Your task to perform on an android device: set the timer Image 0: 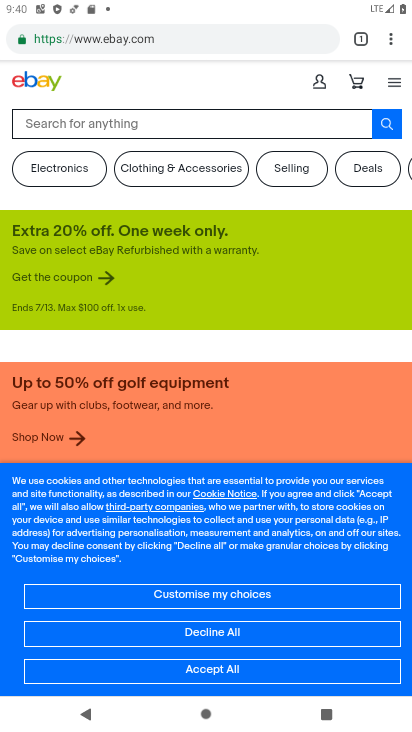
Step 0: press home button
Your task to perform on an android device: set the timer Image 1: 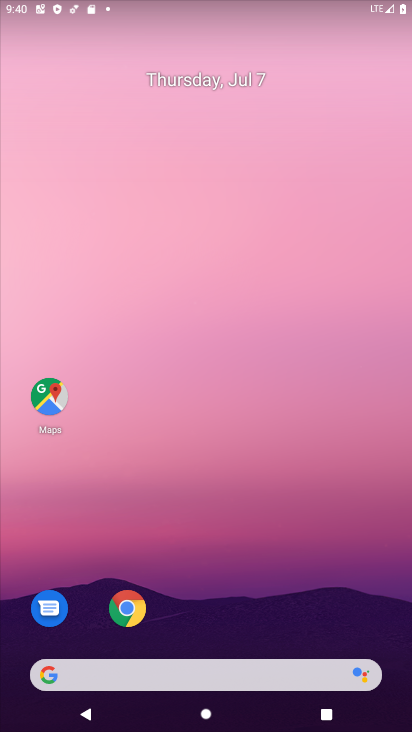
Step 1: drag from (223, 639) to (320, 118)
Your task to perform on an android device: set the timer Image 2: 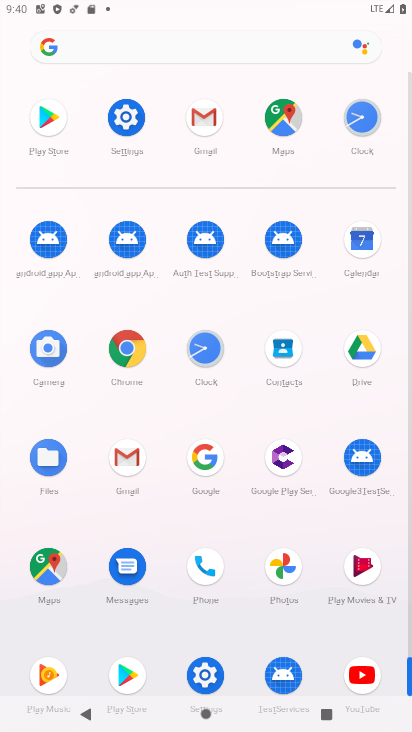
Step 2: click (362, 117)
Your task to perform on an android device: set the timer Image 3: 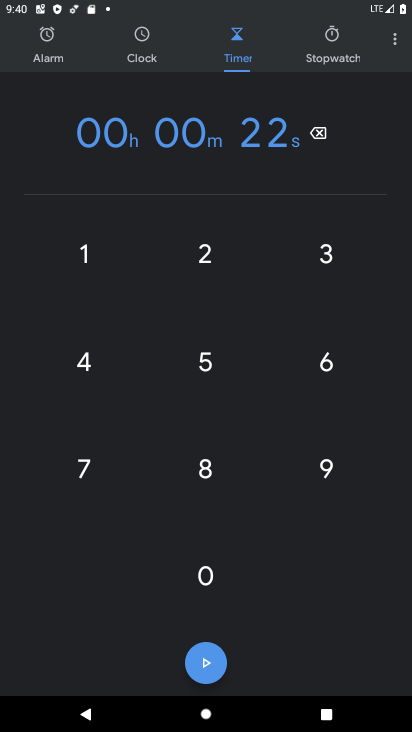
Step 3: click (205, 356)
Your task to perform on an android device: set the timer Image 4: 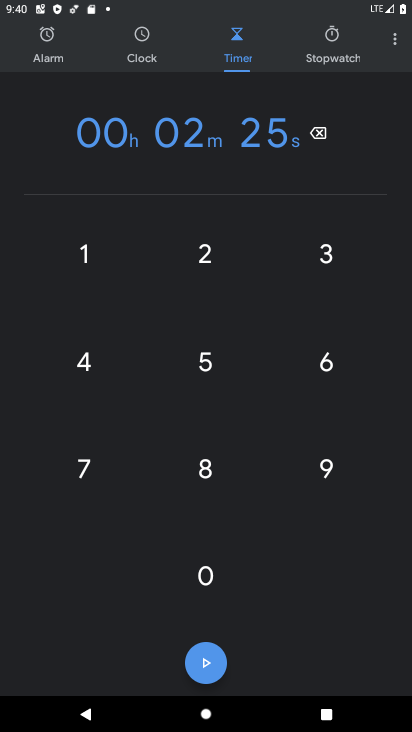
Step 4: task complete